Your task to perform on an android device: turn off airplane mode Image 0: 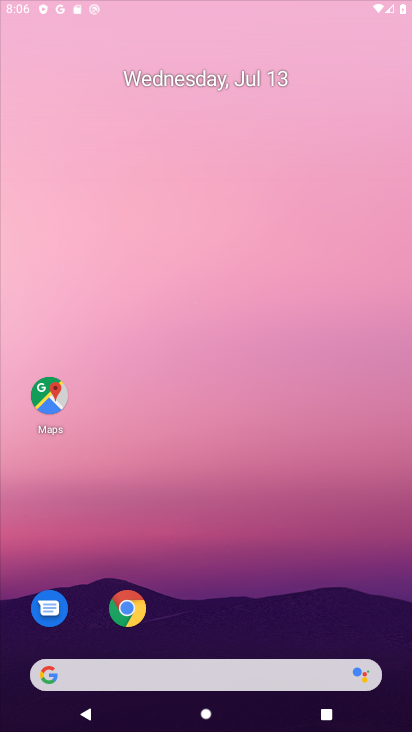
Step 0: press back button
Your task to perform on an android device: turn off airplane mode Image 1: 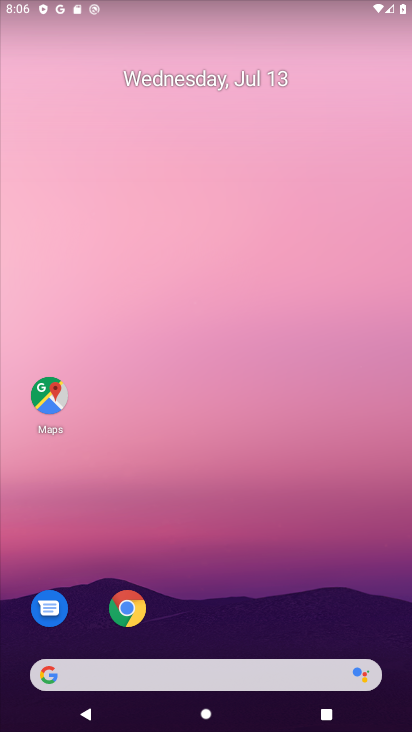
Step 1: click (174, 121)
Your task to perform on an android device: turn off airplane mode Image 2: 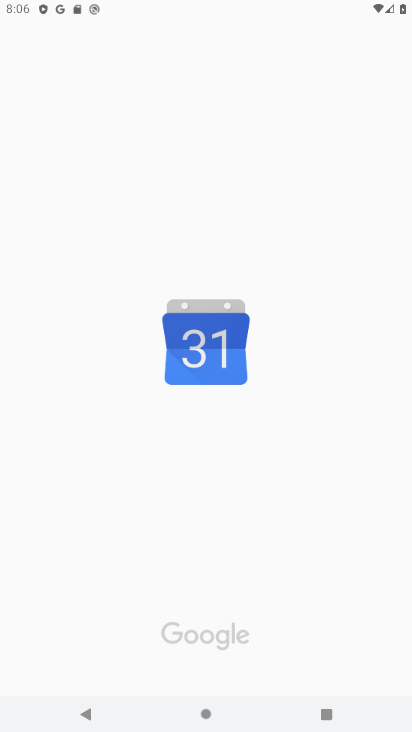
Step 2: press home button
Your task to perform on an android device: turn off airplane mode Image 3: 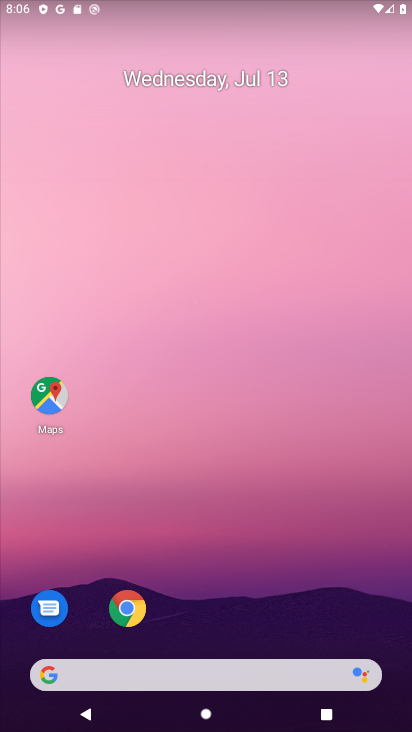
Step 3: drag from (259, 656) to (214, 56)
Your task to perform on an android device: turn off airplane mode Image 4: 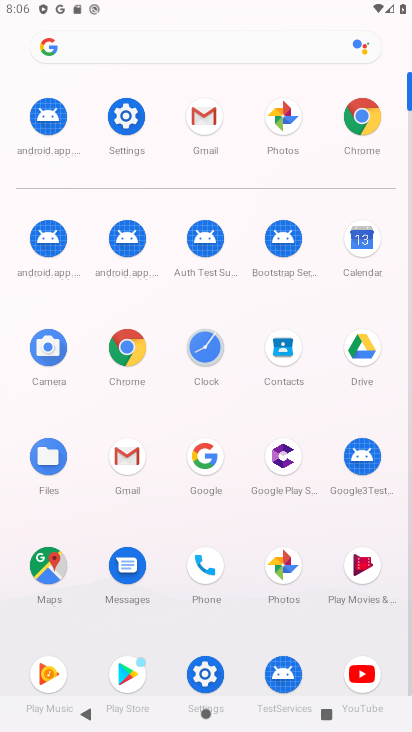
Step 4: click (130, 119)
Your task to perform on an android device: turn off airplane mode Image 5: 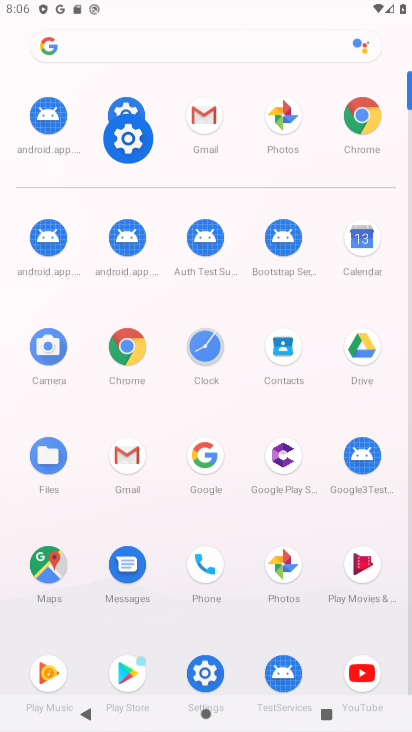
Step 5: click (130, 119)
Your task to perform on an android device: turn off airplane mode Image 6: 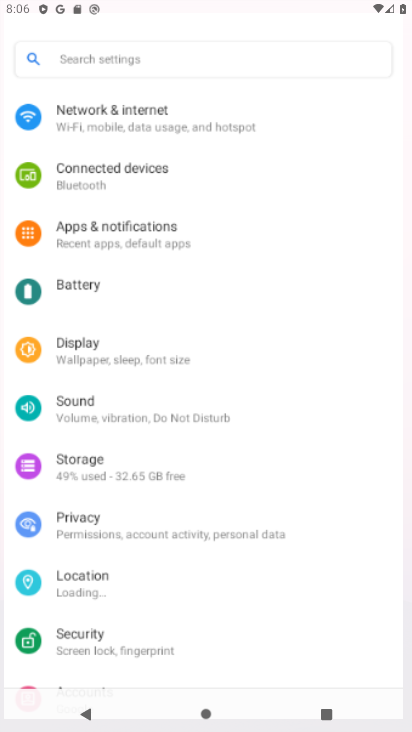
Step 6: click (130, 119)
Your task to perform on an android device: turn off airplane mode Image 7: 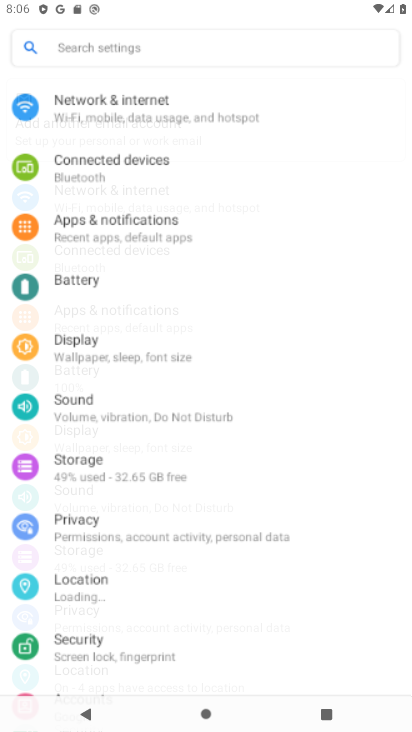
Step 7: click (130, 119)
Your task to perform on an android device: turn off airplane mode Image 8: 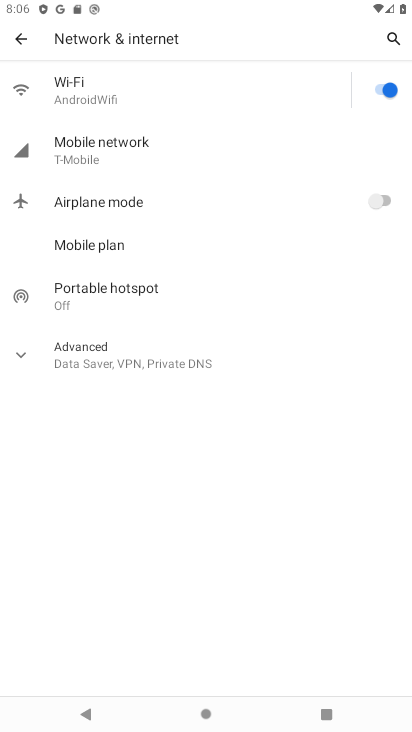
Step 8: click (78, 207)
Your task to perform on an android device: turn off airplane mode Image 9: 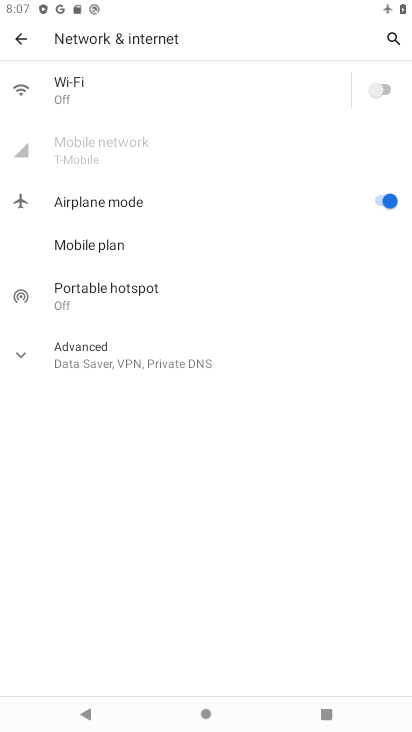
Step 9: click (389, 204)
Your task to perform on an android device: turn off airplane mode Image 10: 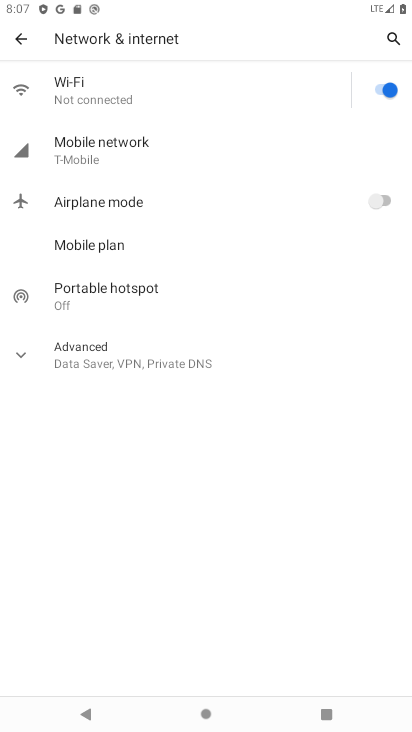
Step 10: task complete